Your task to perform on an android device: What's the weather going to be this weekend? Image 0: 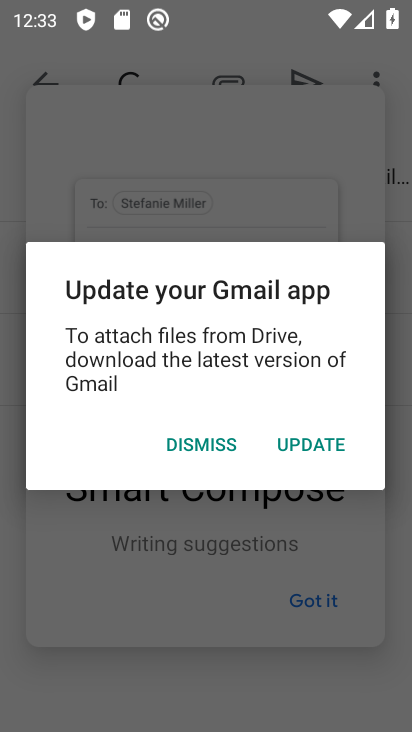
Step 0: press home button
Your task to perform on an android device: What's the weather going to be this weekend? Image 1: 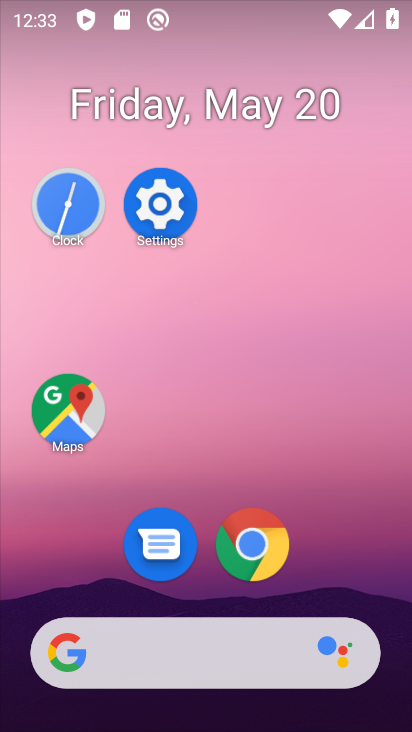
Step 1: drag from (382, 574) to (358, 103)
Your task to perform on an android device: What's the weather going to be this weekend? Image 2: 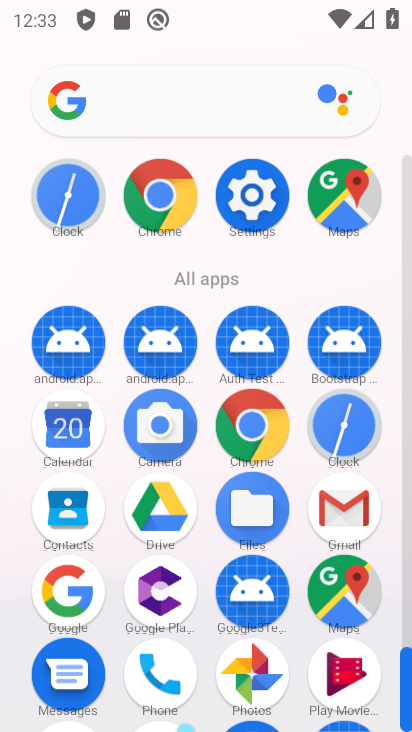
Step 2: drag from (53, 594) to (97, 325)
Your task to perform on an android device: What's the weather going to be this weekend? Image 3: 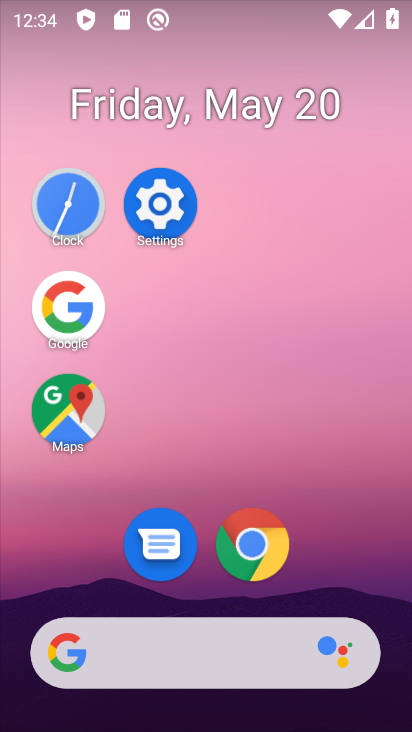
Step 3: click (83, 289)
Your task to perform on an android device: What's the weather going to be this weekend? Image 4: 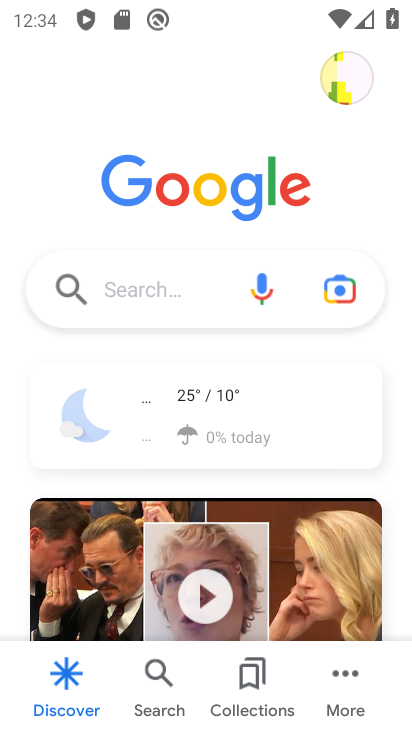
Step 4: click (179, 389)
Your task to perform on an android device: What's the weather going to be this weekend? Image 5: 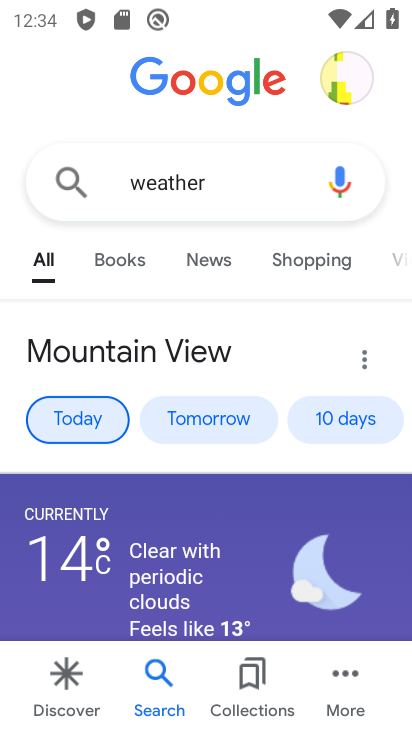
Step 5: click (339, 413)
Your task to perform on an android device: What's the weather going to be this weekend? Image 6: 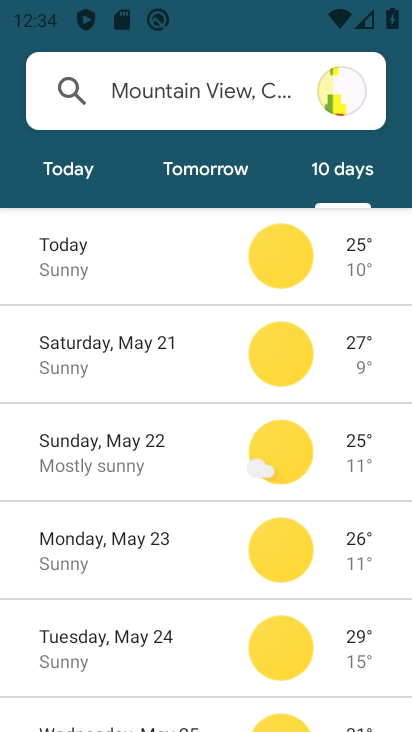
Step 6: drag from (187, 628) to (152, 209)
Your task to perform on an android device: What's the weather going to be this weekend? Image 7: 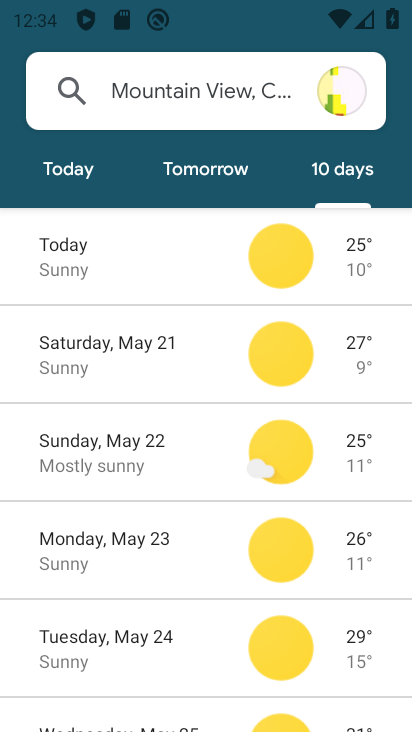
Step 7: click (176, 352)
Your task to perform on an android device: What's the weather going to be this weekend? Image 8: 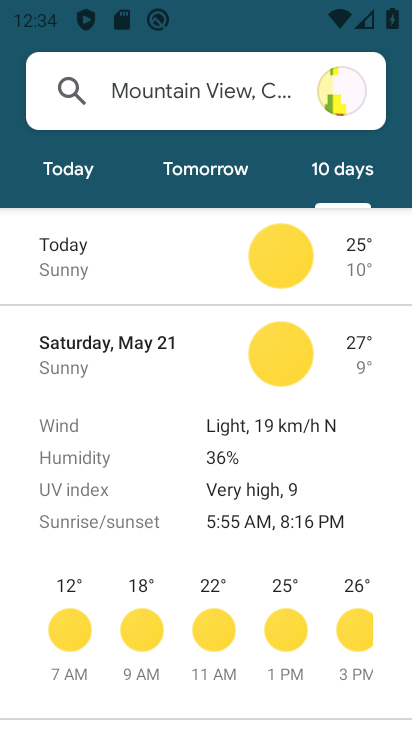
Step 8: task complete